Your task to perform on an android device: Open Android settings Image 0: 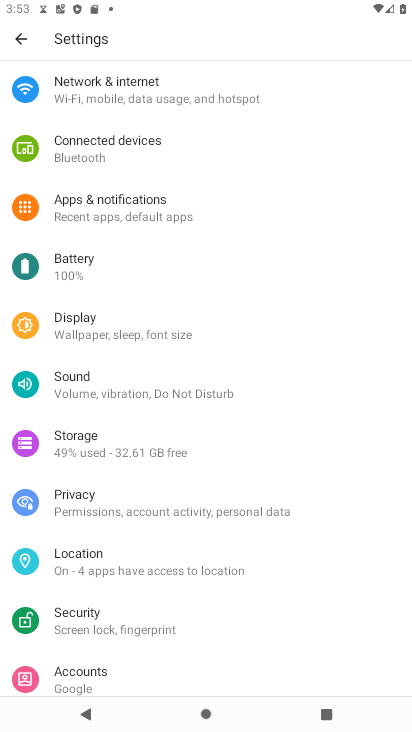
Step 0: drag from (153, 665) to (199, 324)
Your task to perform on an android device: Open Android settings Image 1: 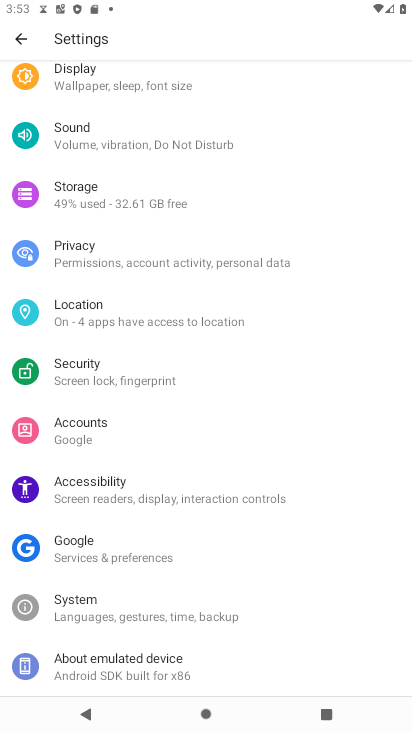
Step 1: task complete